Your task to perform on an android device: Open settings on Google Maps Image 0: 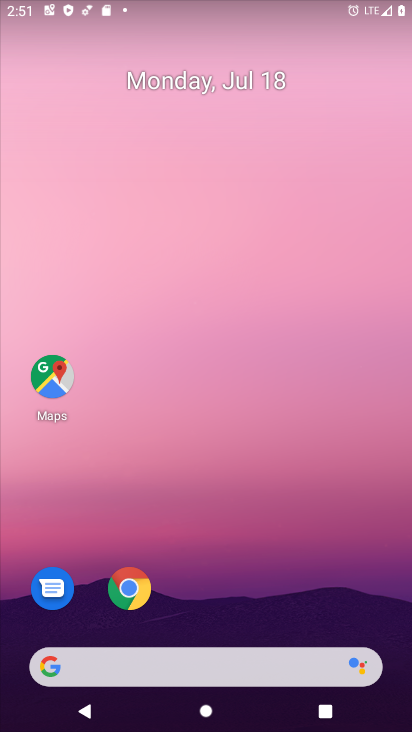
Step 0: click (49, 371)
Your task to perform on an android device: Open settings on Google Maps Image 1: 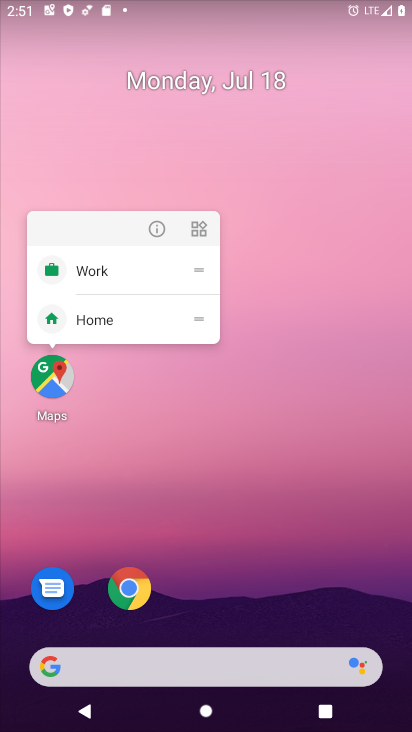
Step 1: click (62, 375)
Your task to perform on an android device: Open settings on Google Maps Image 2: 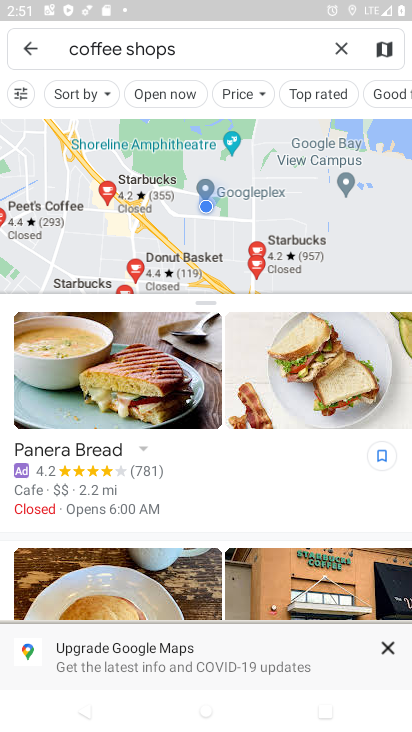
Step 2: click (33, 53)
Your task to perform on an android device: Open settings on Google Maps Image 3: 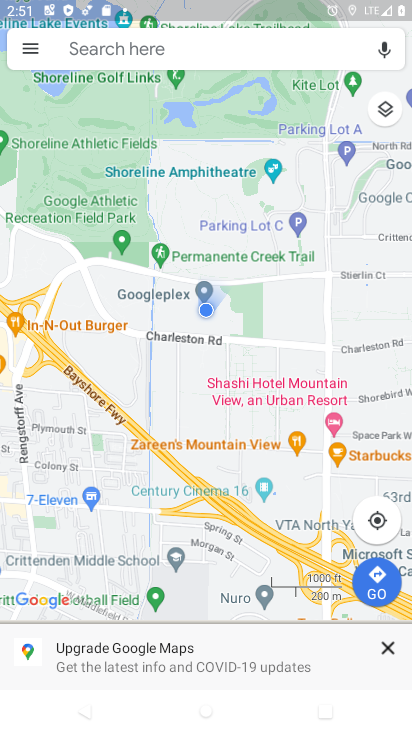
Step 3: click (38, 50)
Your task to perform on an android device: Open settings on Google Maps Image 4: 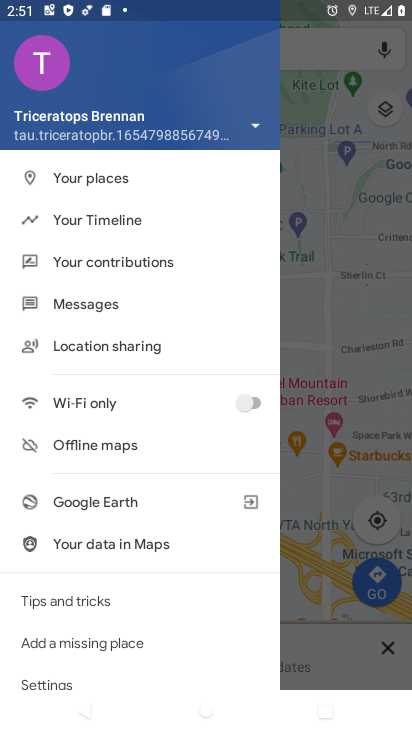
Step 4: click (58, 682)
Your task to perform on an android device: Open settings on Google Maps Image 5: 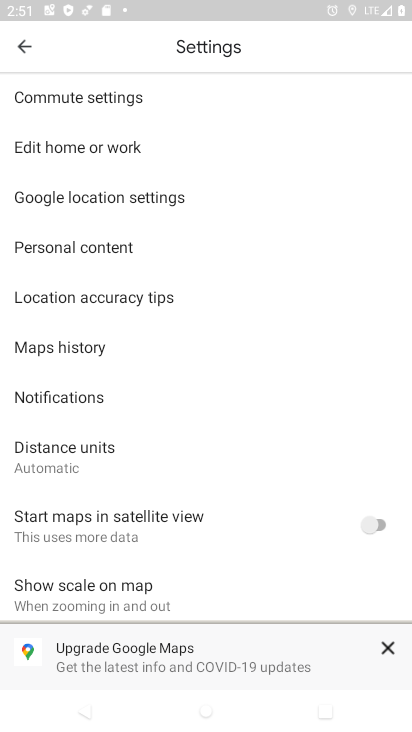
Step 5: task complete